Your task to perform on an android device: set default search engine in the chrome app Image 0: 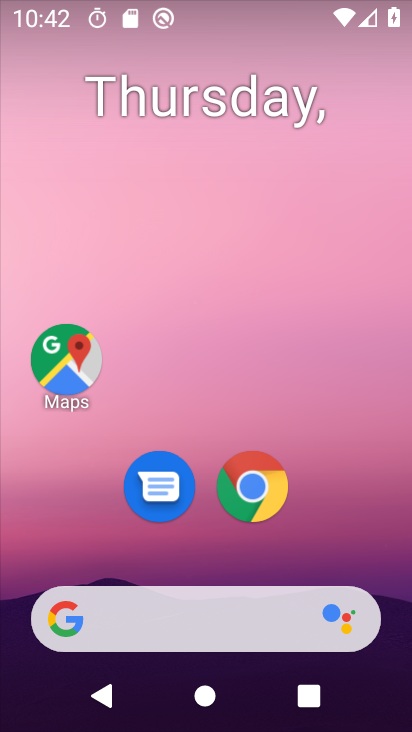
Step 0: drag from (336, 290) to (329, 164)
Your task to perform on an android device: set default search engine in the chrome app Image 1: 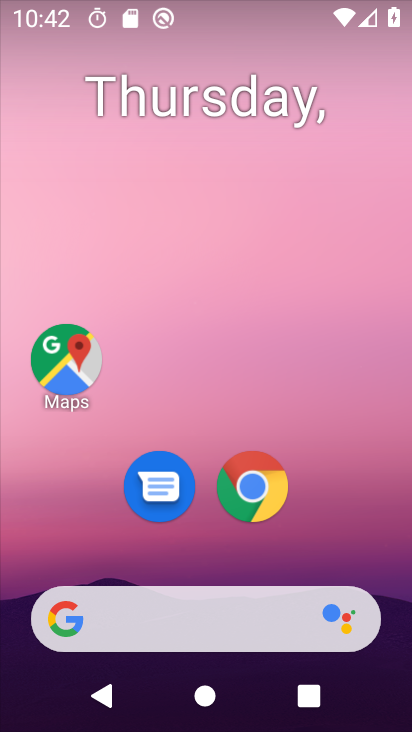
Step 1: drag from (380, 459) to (365, 227)
Your task to perform on an android device: set default search engine in the chrome app Image 2: 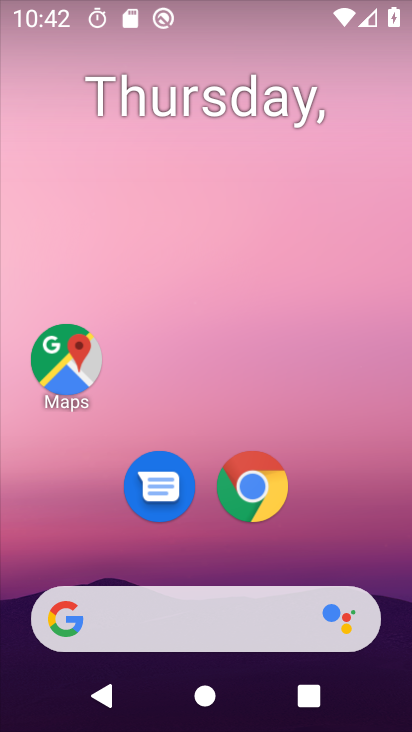
Step 2: drag from (394, 397) to (378, 161)
Your task to perform on an android device: set default search engine in the chrome app Image 3: 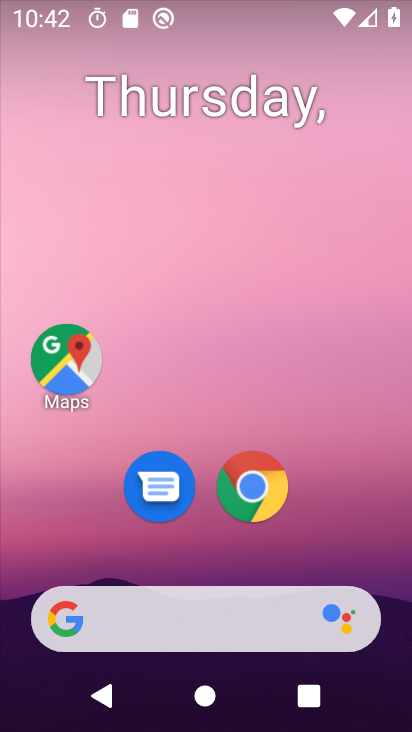
Step 3: drag from (400, 364) to (383, 123)
Your task to perform on an android device: set default search engine in the chrome app Image 4: 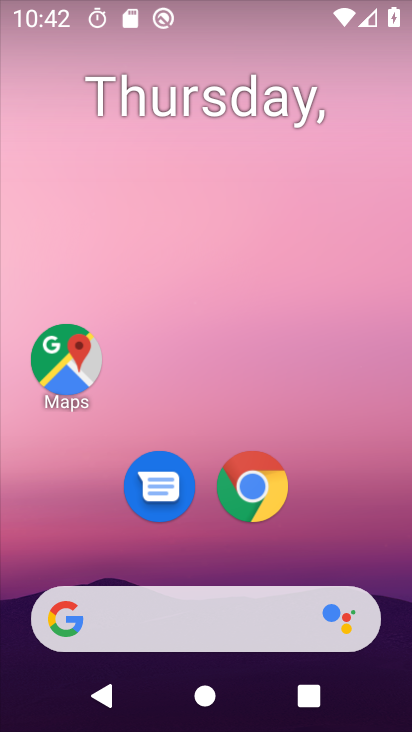
Step 4: drag from (407, 511) to (371, 185)
Your task to perform on an android device: set default search engine in the chrome app Image 5: 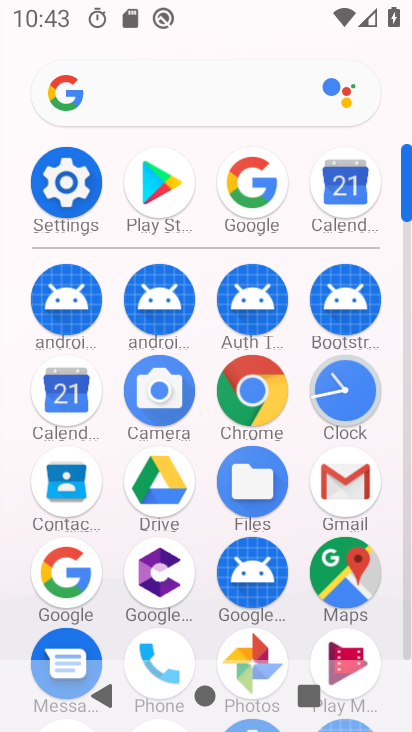
Step 5: click (254, 397)
Your task to perform on an android device: set default search engine in the chrome app Image 6: 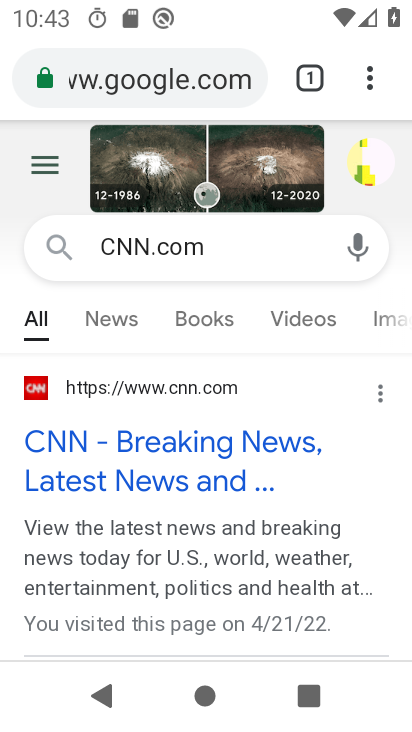
Step 6: click (369, 76)
Your task to perform on an android device: set default search engine in the chrome app Image 7: 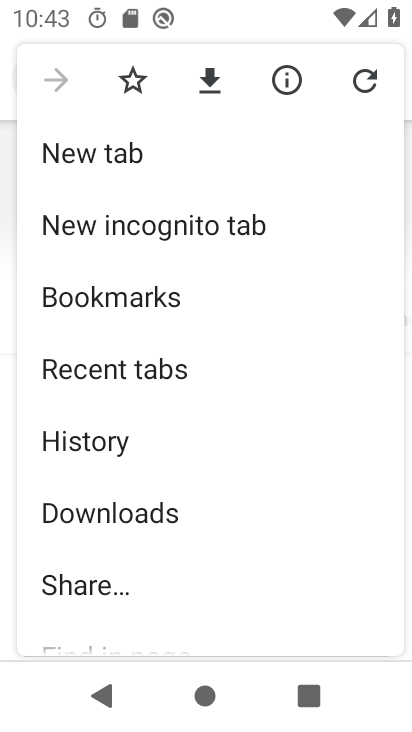
Step 7: drag from (287, 552) to (295, 295)
Your task to perform on an android device: set default search engine in the chrome app Image 8: 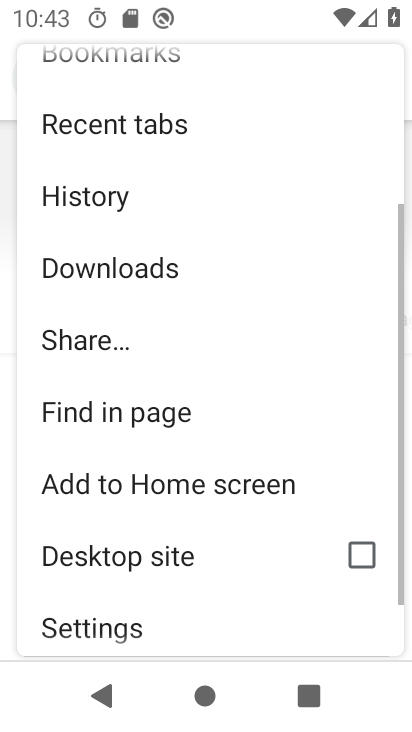
Step 8: click (303, 220)
Your task to perform on an android device: set default search engine in the chrome app Image 9: 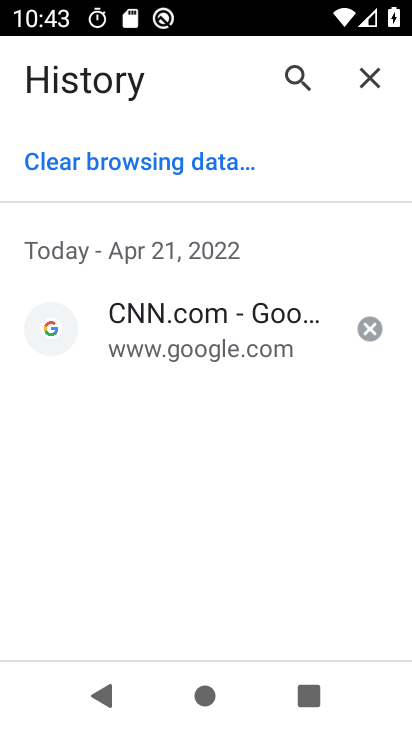
Step 9: press back button
Your task to perform on an android device: set default search engine in the chrome app Image 10: 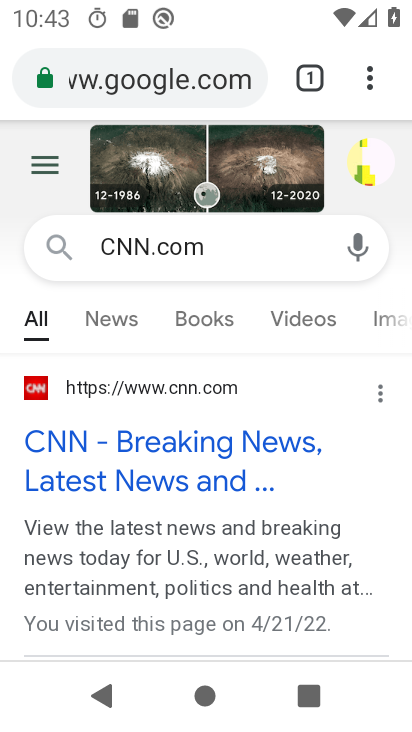
Step 10: click (364, 73)
Your task to perform on an android device: set default search engine in the chrome app Image 11: 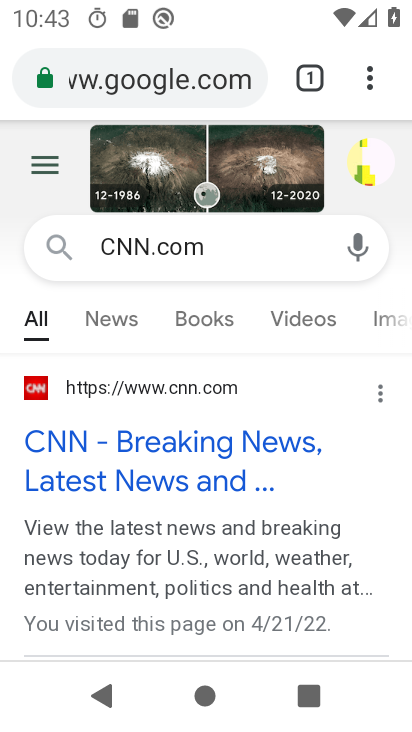
Step 11: click (369, 77)
Your task to perform on an android device: set default search engine in the chrome app Image 12: 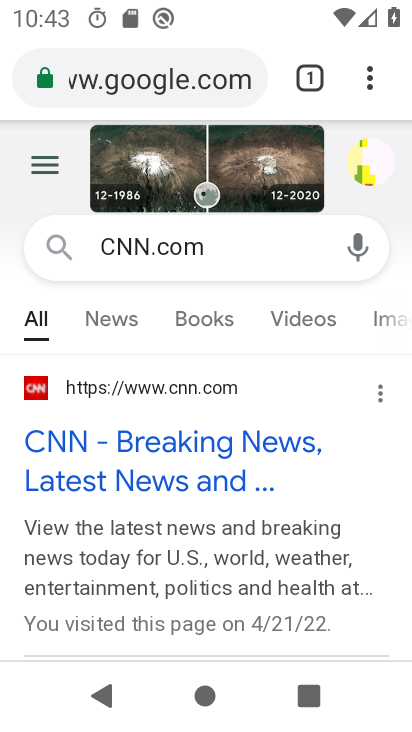
Step 12: click (369, 77)
Your task to perform on an android device: set default search engine in the chrome app Image 13: 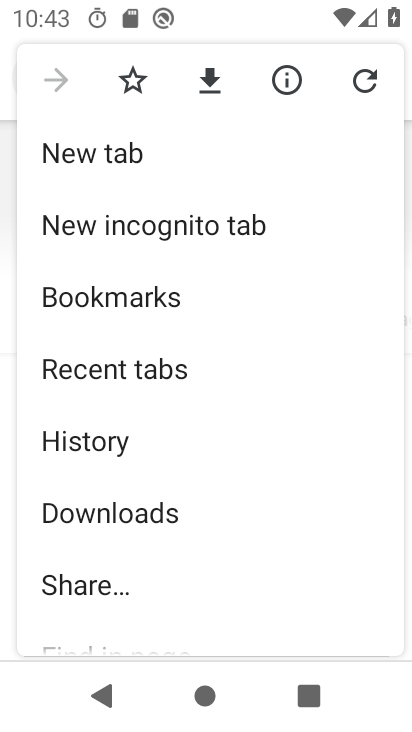
Step 13: click (284, 296)
Your task to perform on an android device: set default search engine in the chrome app Image 14: 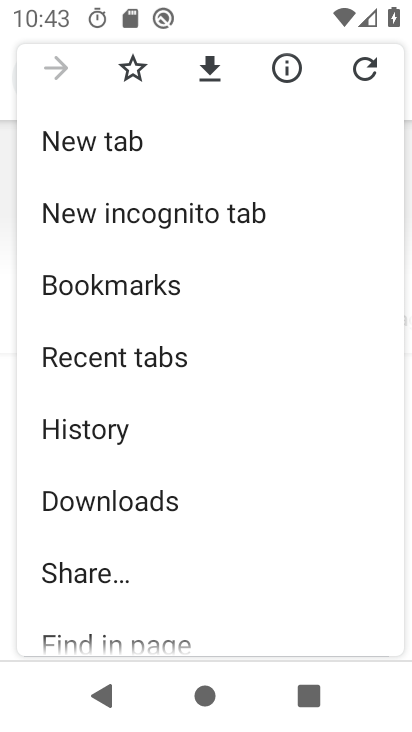
Step 14: drag from (262, 460) to (262, 247)
Your task to perform on an android device: set default search engine in the chrome app Image 15: 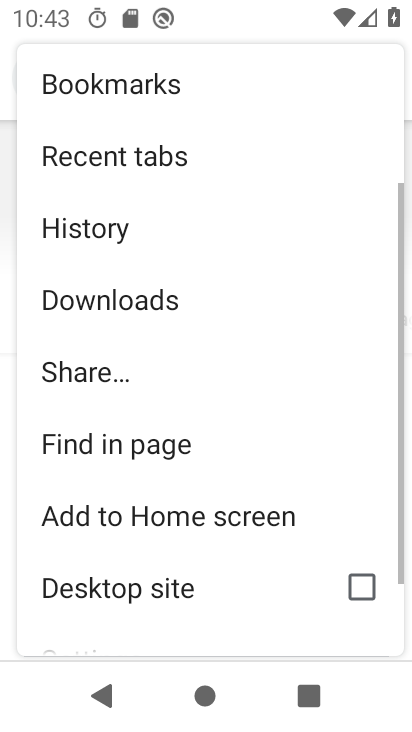
Step 15: drag from (279, 574) to (310, 278)
Your task to perform on an android device: set default search engine in the chrome app Image 16: 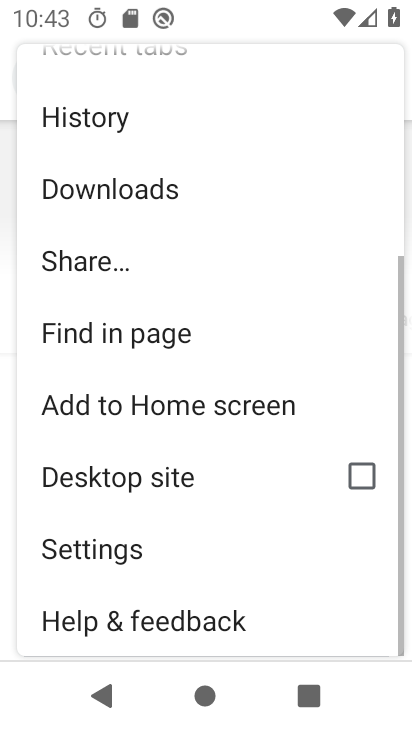
Step 16: drag from (254, 577) to (276, 205)
Your task to perform on an android device: set default search engine in the chrome app Image 17: 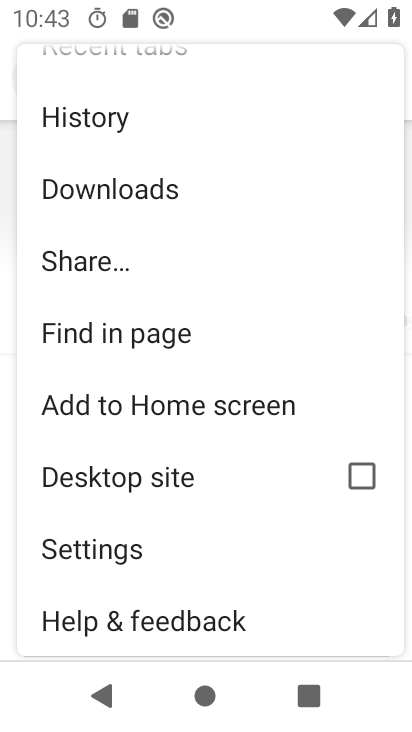
Step 17: click (79, 545)
Your task to perform on an android device: set default search engine in the chrome app Image 18: 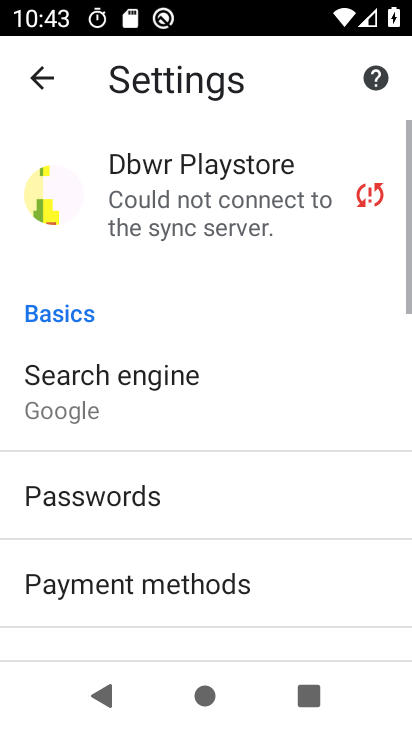
Step 18: click (75, 383)
Your task to perform on an android device: set default search engine in the chrome app Image 19: 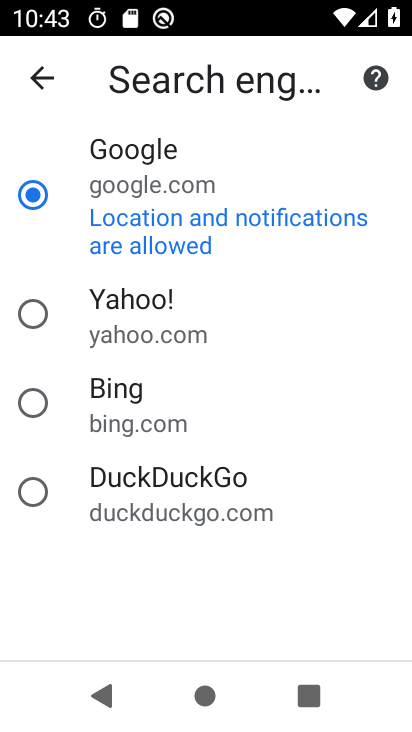
Step 19: task complete